Your task to perform on an android device: Go to settings Image 0: 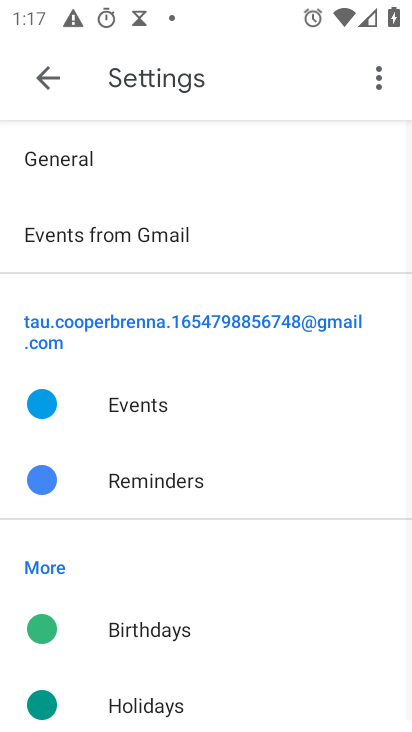
Step 0: press home button
Your task to perform on an android device: Go to settings Image 1: 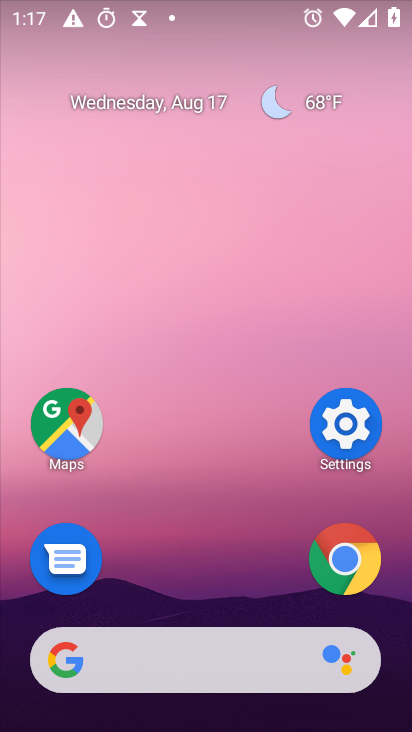
Step 1: click (345, 429)
Your task to perform on an android device: Go to settings Image 2: 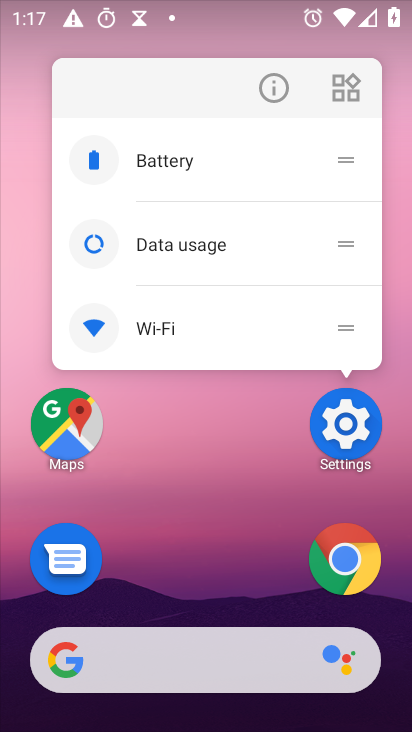
Step 2: click (345, 429)
Your task to perform on an android device: Go to settings Image 3: 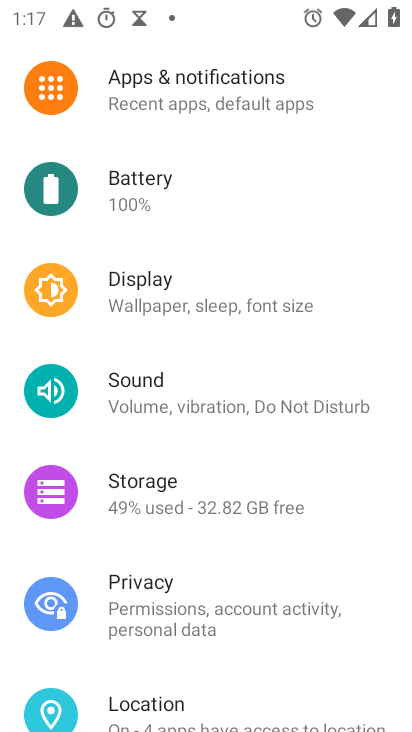
Step 3: task complete